Your task to perform on an android device: Search for sushi restaurants on Maps Image 0: 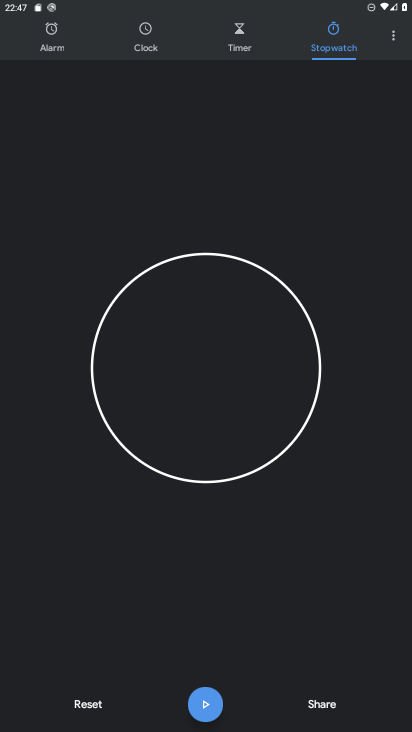
Step 0: press home button
Your task to perform on an android device: Search for sushi restaurants on Maps Image 1: 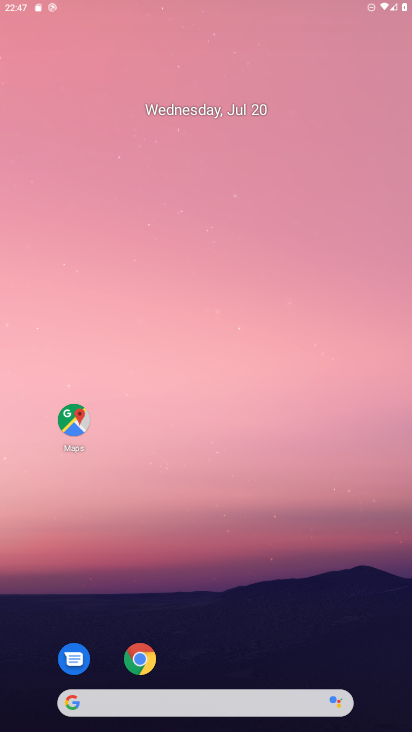
Step 1: drag from (252, 511) to (148, 0)
Your task to perform on an android device: Search for sushi restaurants on Maps Image 2: 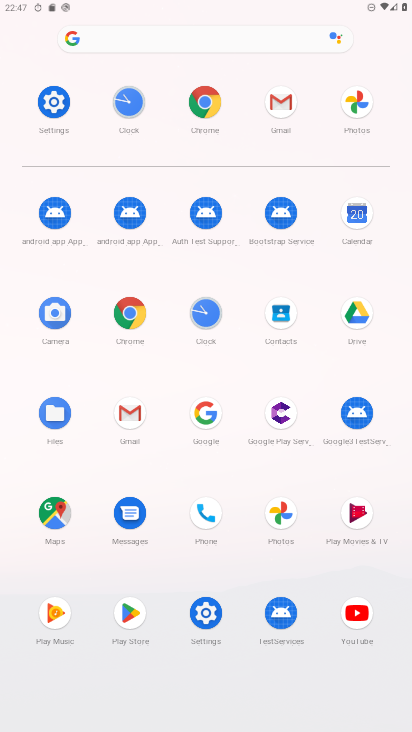
Step 2: click (52, 516)
Your task to perform on an android device: Search for sushi restaurants on Maps Image 3: 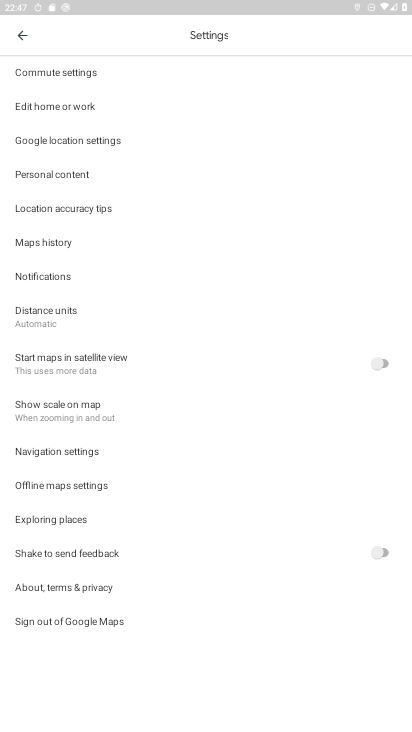
Step 3: click (21, 38)
Your task to perform on an android device: Search for sushi restaurants on Maps Image 4: 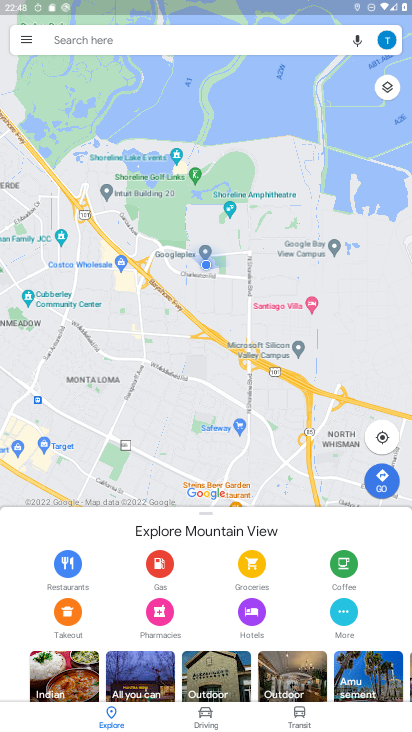
Step 4: click (182, 37)
Your task to perform on an android device: Search for sushi restaurants on Maps Image 5: 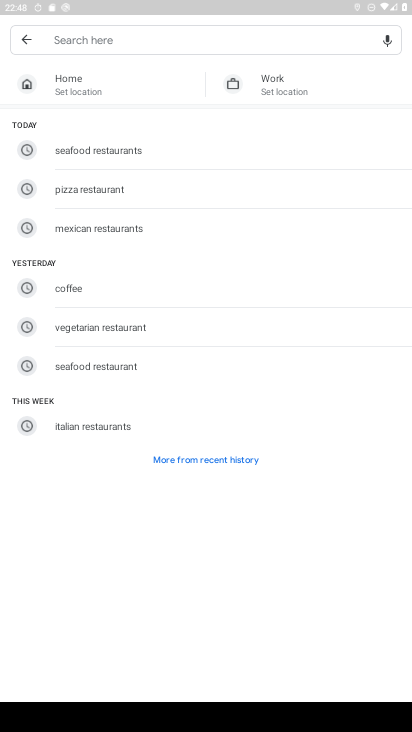
Step 5: type "sushi restaurants"
Your task to perform on an android device: Search for sushi restaurants on Maps Image 6: 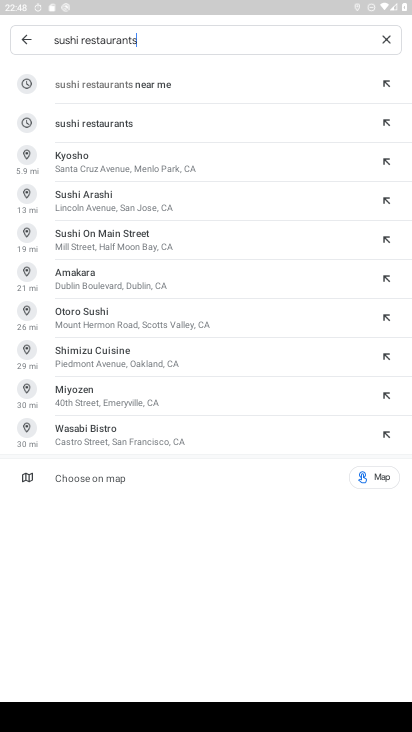
Step 6: press enter
Your task to perform on an android device: Search for sushi restaurants on Maps Image 7: 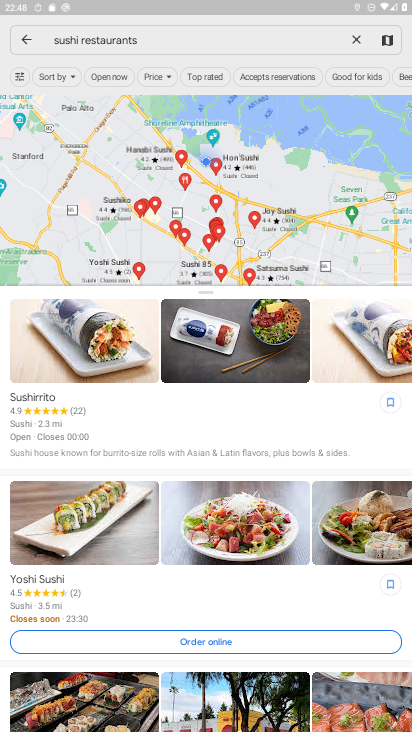
Step 7: task complete